Your task to perform on an android device: turn off location Image 0: 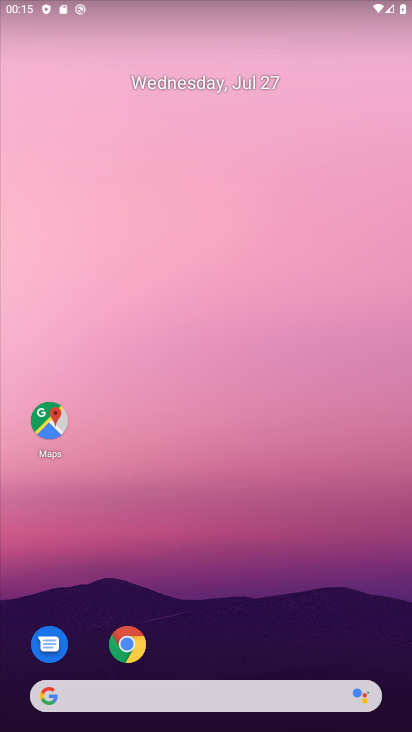
Step 0: click (198, 225)
Your task to perform on an android device: turn off location Image 1: 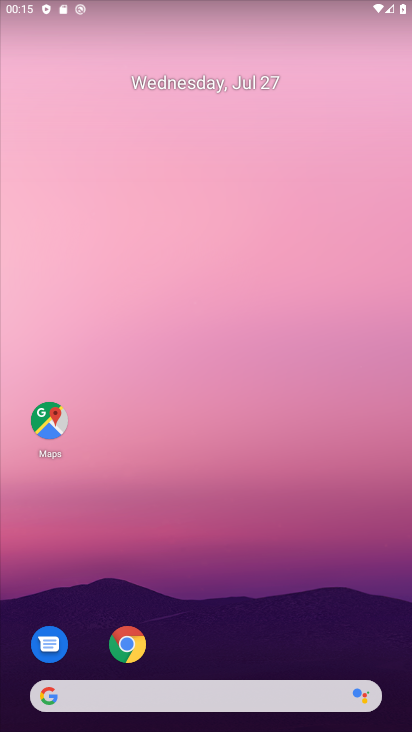
Step 1: drag from (238, 619) to (264, 54)
Your task to perform on an android device: turn off location Image 2: 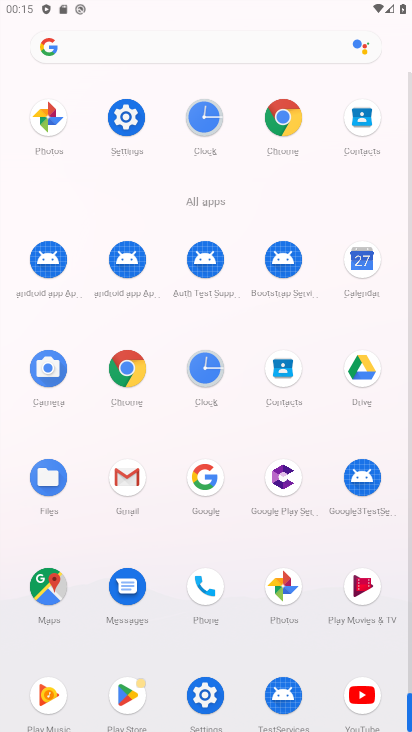
Step 2: click (211, 689)
Your task to perform on an android device: turn off location Image 3: 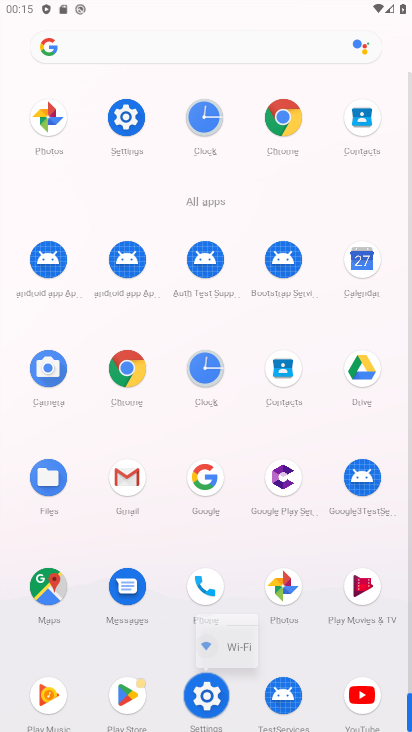
Step 3: click (202, 685)
Your task to perform on an android device: turn off location Image 4: 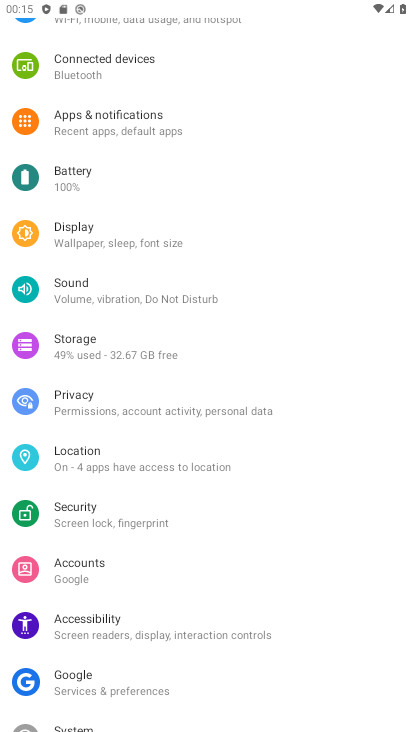
Step 4: click (90, 457)
Your task to perform on an android device: turn off location Image 5: 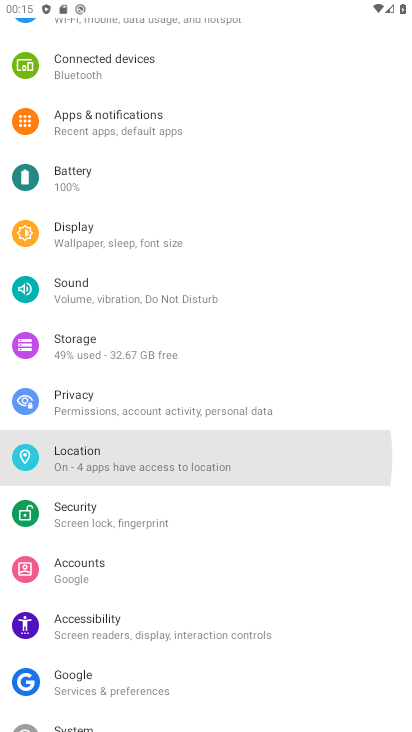
Step 5: click (90, 457)
Your task to perform on an android device: turn off location Image 6: 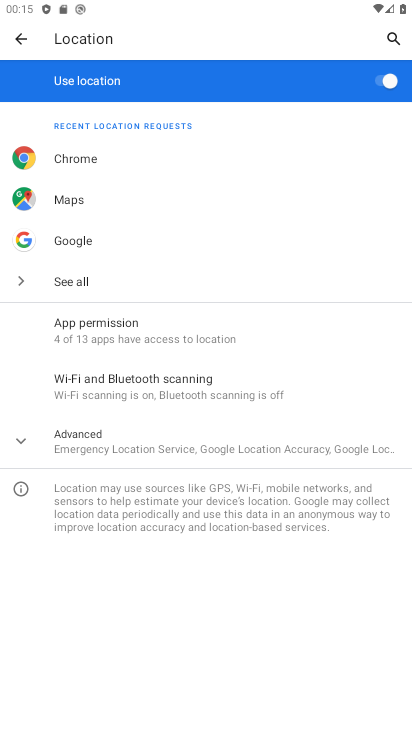
Step 6: click (395, 84)
Your task to perform on an android device: turn off location Image 7: 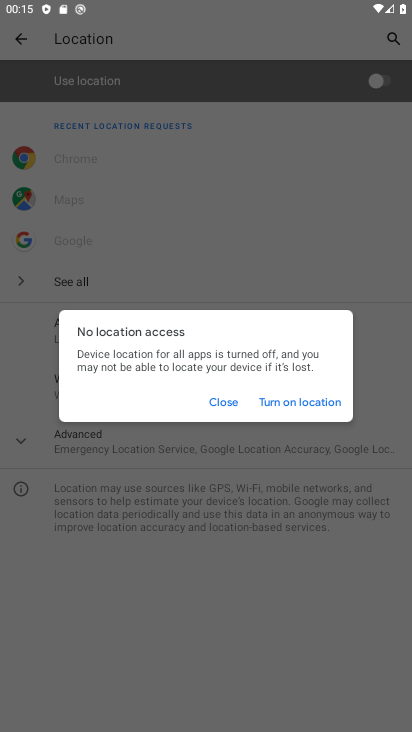
Step 7: task complete